Your task to perform on an android device: Open my contact list Image 0: 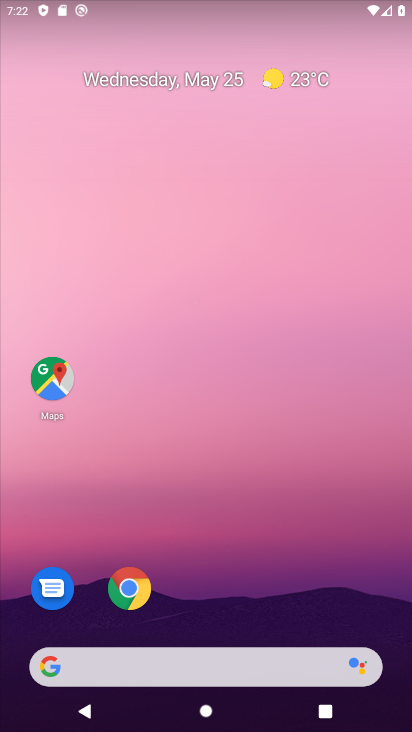
Step 0: drag from (214, 591) to (238, 210)
Your task to perform on an android device: Open my contact list Image 1: 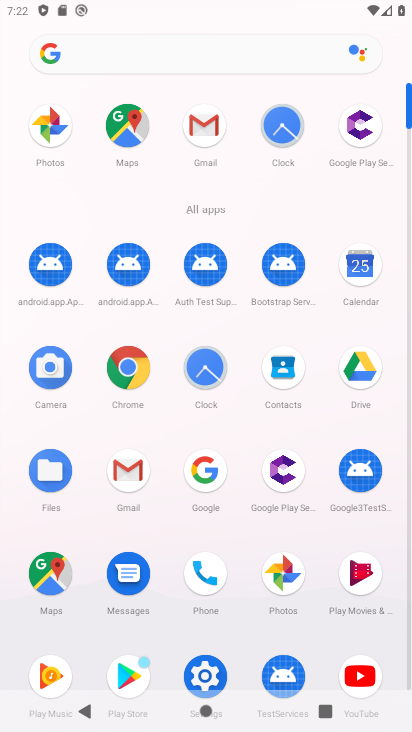
Step 1: click (288, 372)
Your task to perform on an android device: Open my contact list Image 2: 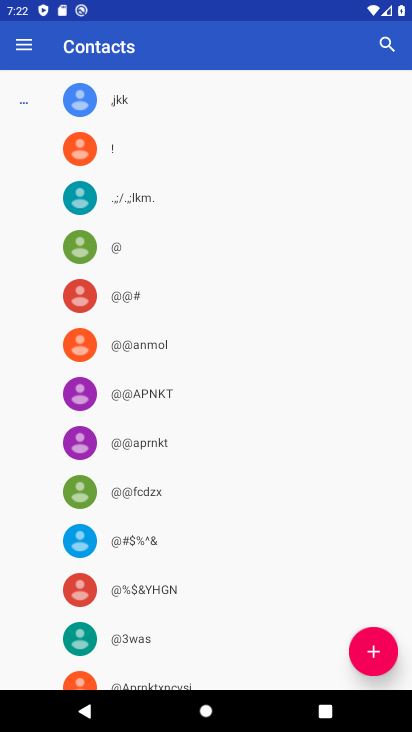
Step 2: task complete